Your task to perform on an android device: refresh tabs in the chrome app Image 0: 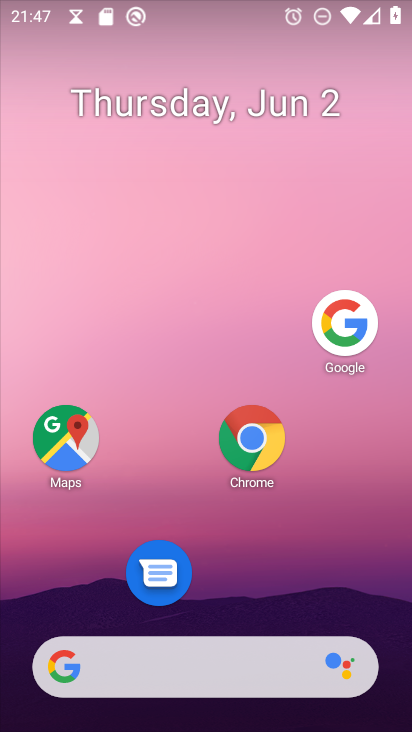
Step 0: press home button
Your task to perform on an android device: refresh tabs in the chrome app Image 1: 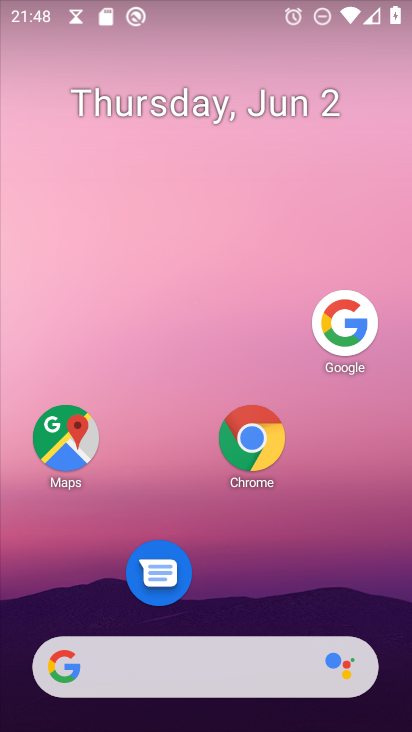
Step 1: click (251, 448)
Your task to perform on an android device: refresh tabs in the chrome app Image 2: 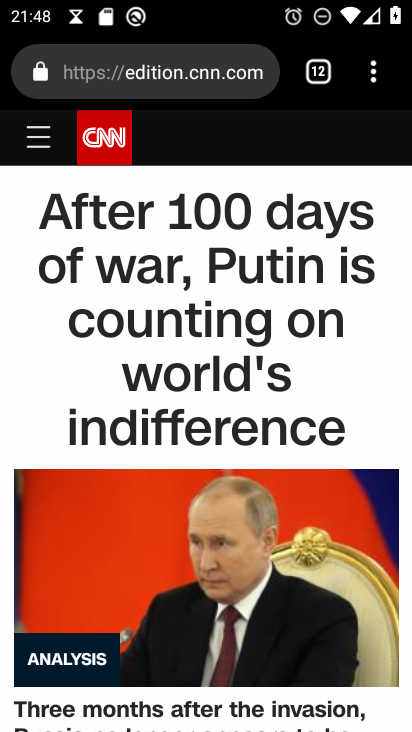
Step 2: click (374, 92)
Your task to perform on an android device: refresh tabs in the chrome app Image 3: 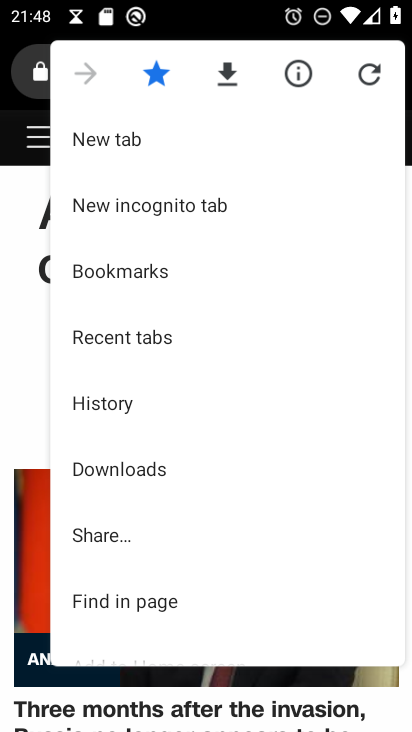
Step 3: click (359, 71)
Your task to perform on an android device: refresh tabs in the chrome app Image 4: 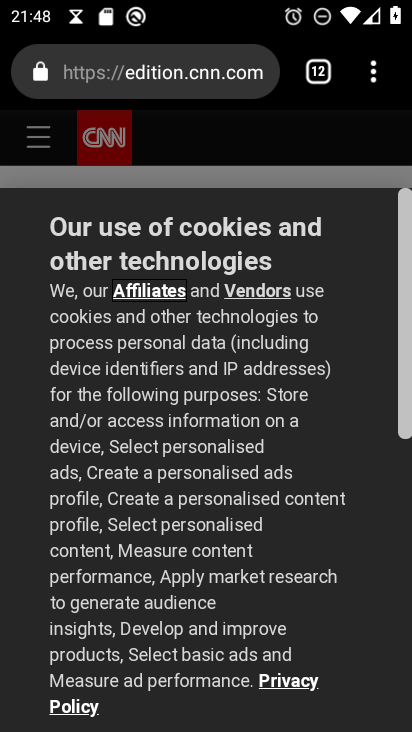
Step 4: task complete